Your task to perform on an android device: install app "NewsBreak: Local News & Alerts" Image 0: 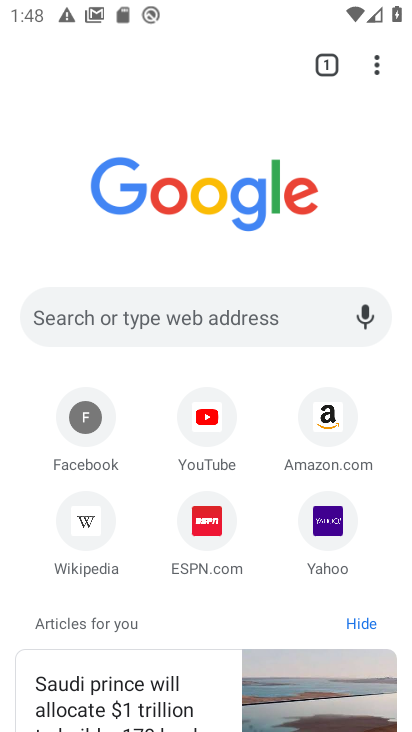
Step 0: press home button
Your task to perform on an android device: install app "NewsBreak: Local News & Alerts" Image 1: 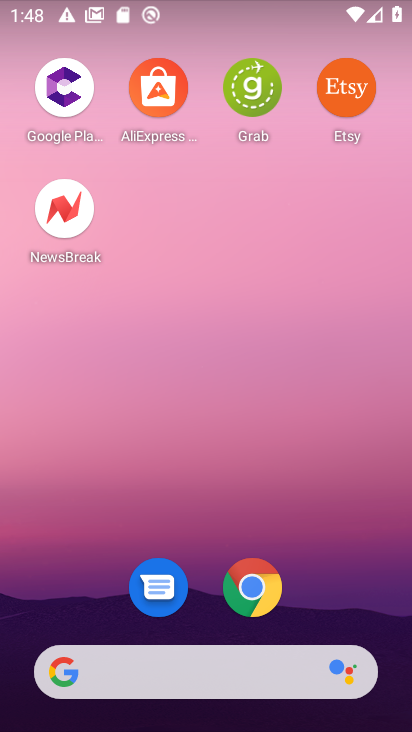
Step 1: drag from (141, 551) to (187, 6)
Your task to perform on an android device: install app "NewsBreak: Local News & Alerts" Image 2: 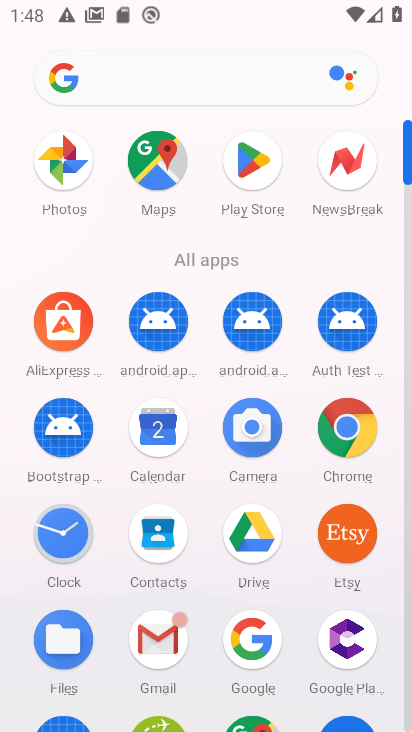
Step 2: click (253, 188)
Your task to perform on an android device: install app "NewsBreak: Local News & Alerts" Image 3: 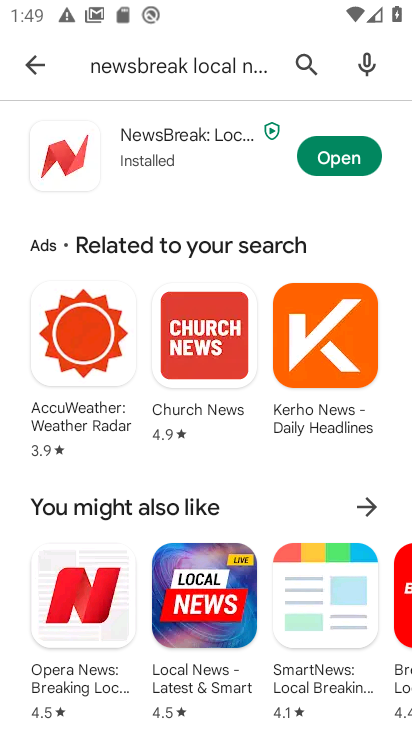
Step 3: task complete